Your task to perform on an android device: install app "Reddit" Image 0: 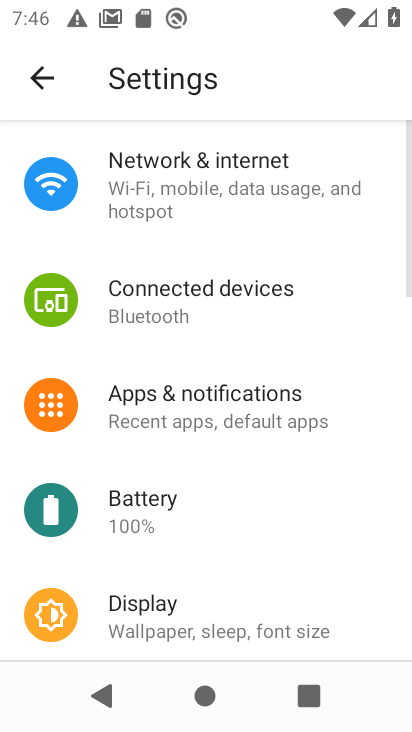
Step 0: press home button
Your task to perform on an android device: install app "Reddit" Image 1: 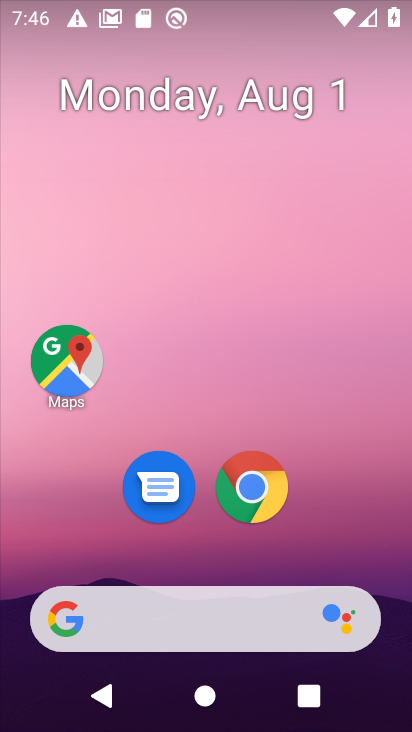
Step 1: drag from (353, 519) to (328, 57)
Your task to perform on an android device: install app "Reddit" Image 2: 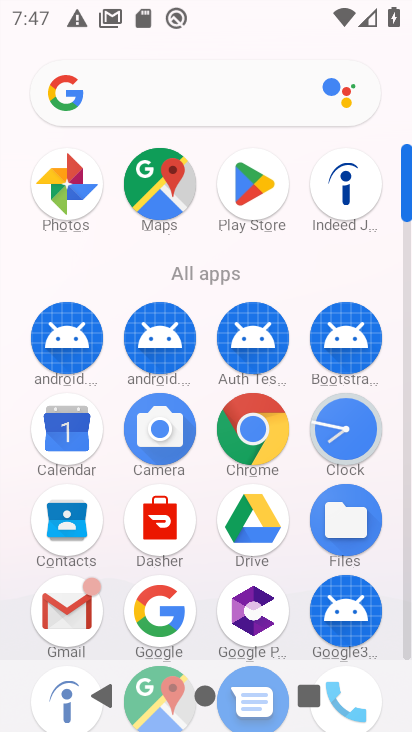
Step 2: click (252, 185)
Your task to perform on an android device: install app "Reddit" Image 3: 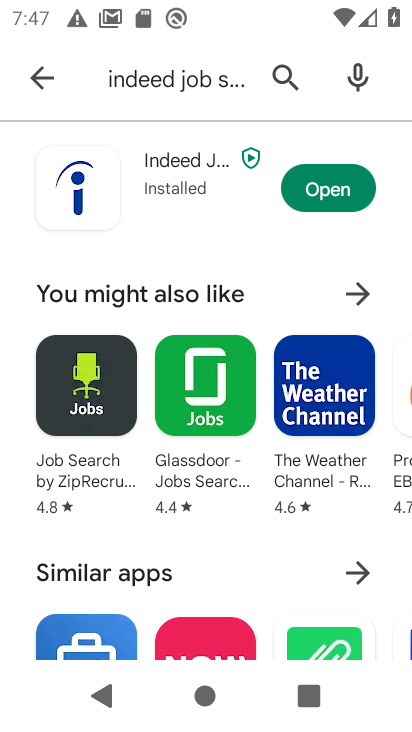
Step 3: click (284, 75)
Your task to perform on an android device: install app "Reddit" Image 4: 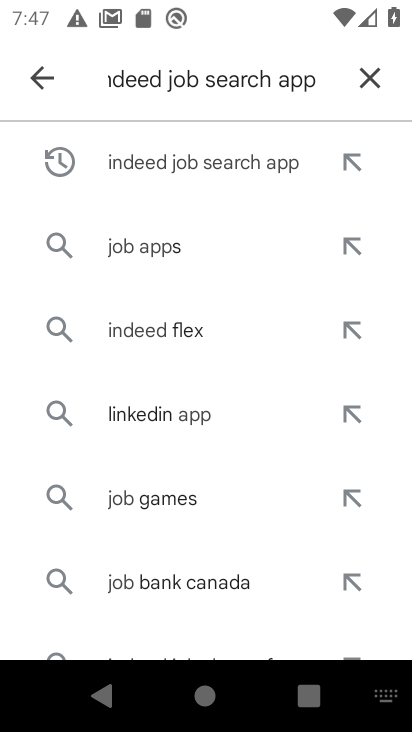
Step 4: click (370, 78)
Your task to perform on an android device: install app "Reddit" Image 5: 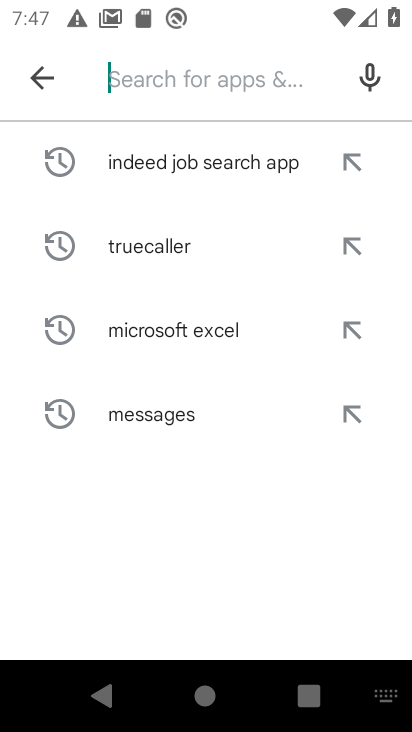
Step 5: type "reddit"
Your task to perform on an android device: install app "Reddit" Image 6: 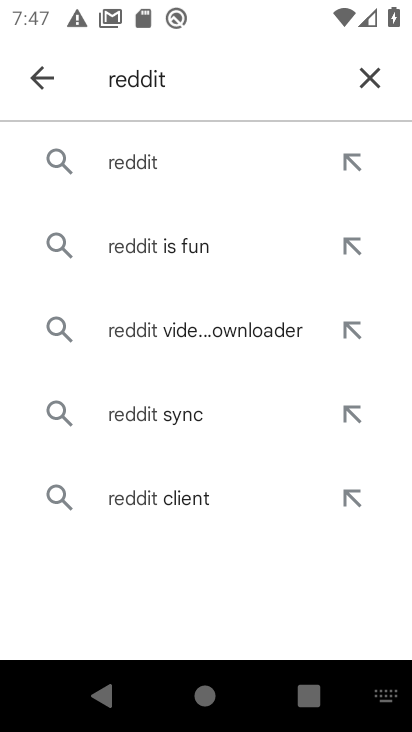
Step 6: click (192, 161)
Your task to perform on an android device: install app "Reddit" Image 7: 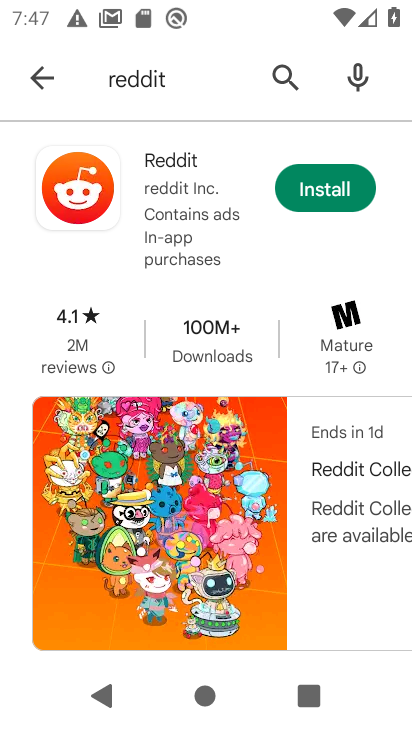
Step 7: click (332, 186)
Your task to perform on an android device: install app "Reddit" Image 8: 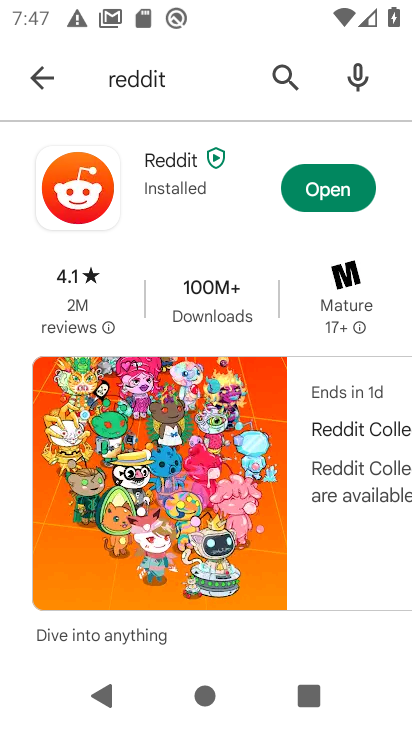
Step 8: task complete